Your task to perform on an android device: change the clock display to show seconds Image 0: 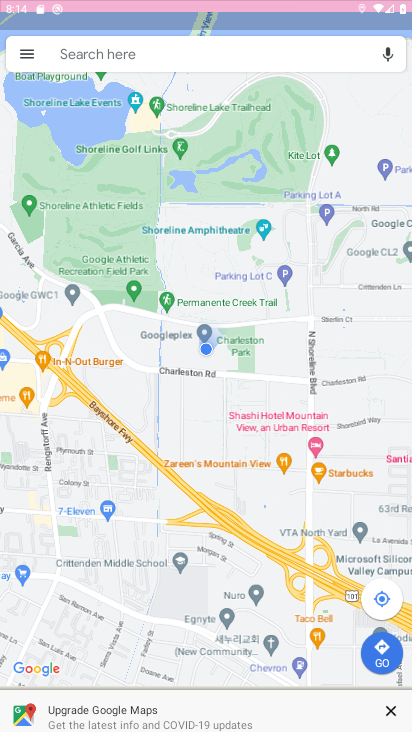
Step 0: click (315, 82)
Your task to perform on an android device: change the clock display to show seconds Image 1: 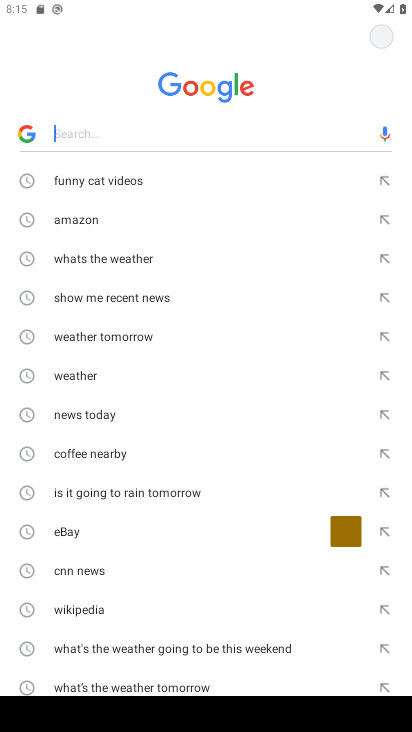
Step 1: press home button
Your task to perform on an android device: change the clock display to show seconds Image 2: 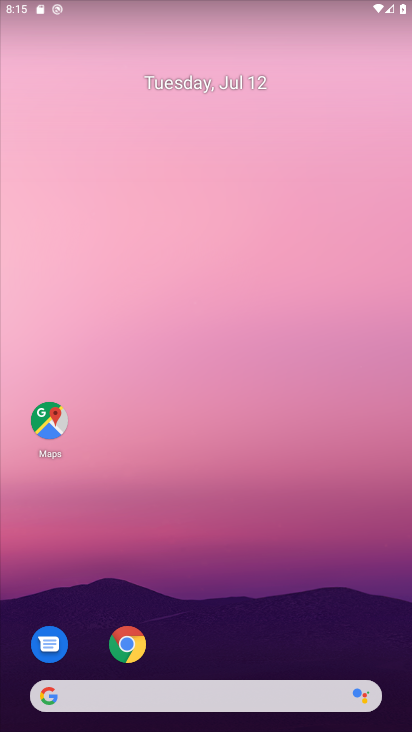
Step 2: drag from (227, 620) to (315, 133)
Your task to perform on an android device: change the clock display to show seconds Image 3: 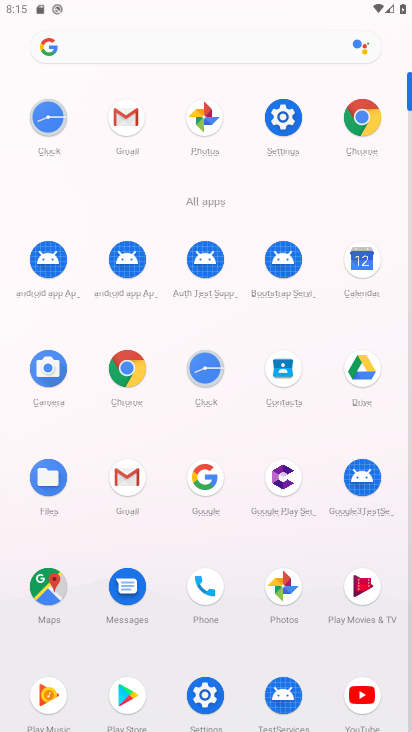
Step 3: click (191, 358)
Your task to perform on an android device: change the clock display to show seconds Image 4: 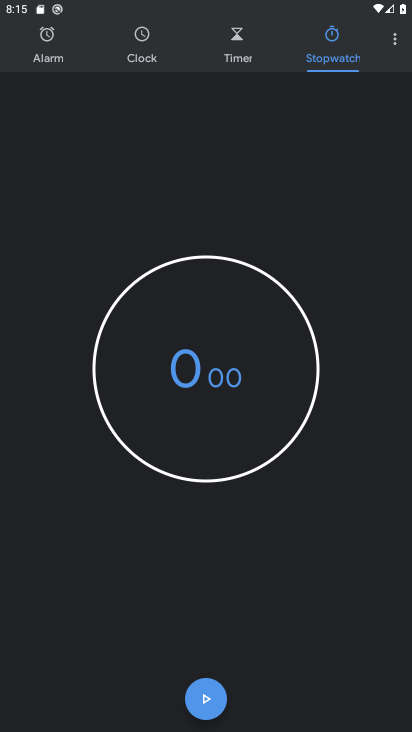
Step 4: click (390, 42)
Your task to perform on an android device: change the clock display to show seconds Image 5: 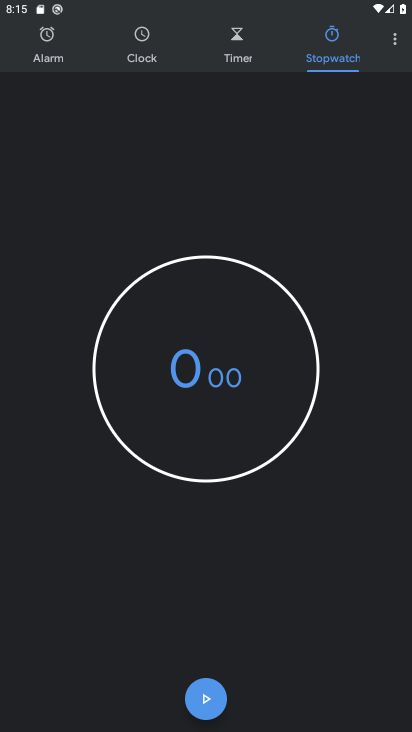
Step 5: click (398, 42)
Your task to perform on an android device: change the clock display to show seconds Image 6: 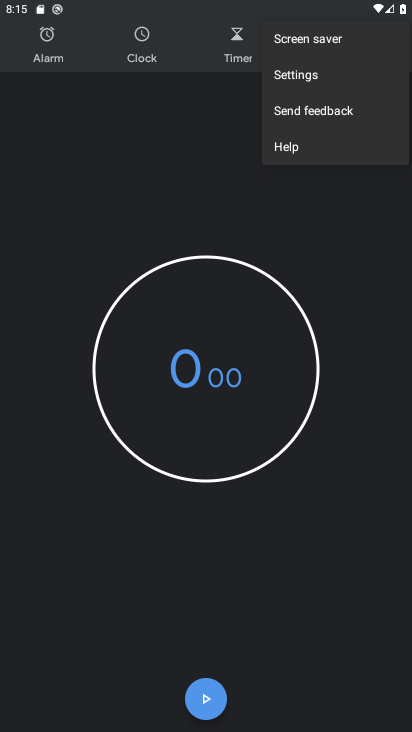
Step 6: click (317, 67)
Your task to perform on an android device: change the clock display to show seconds Image 7: 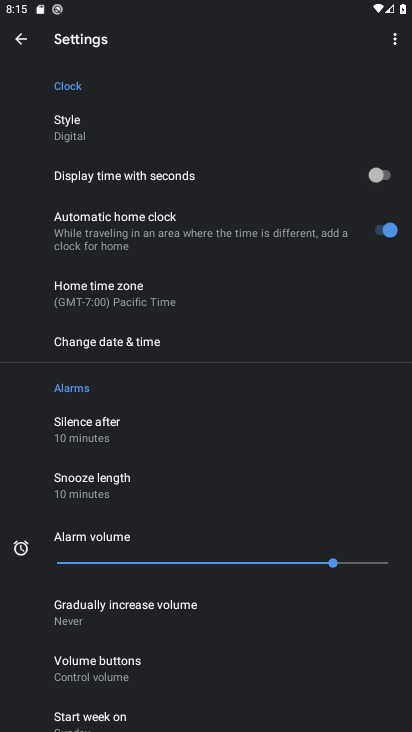
Step 7: click (374, 173)
Your task to perform on an android device: change the clock display to show seconds Image 8: 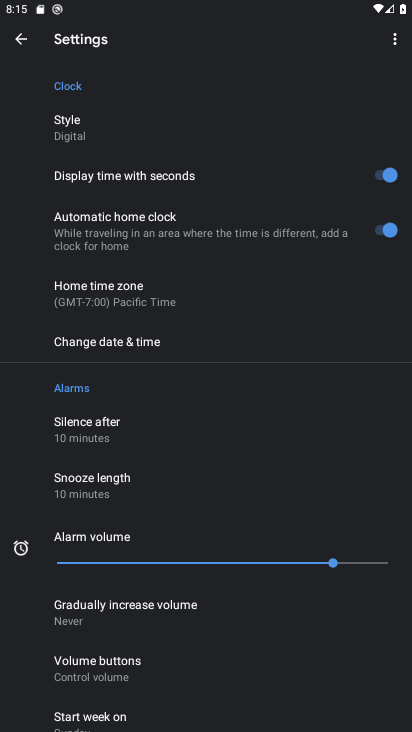
Step 8: task complete